Your task to perform on an android device: turn off wifi Image 0: 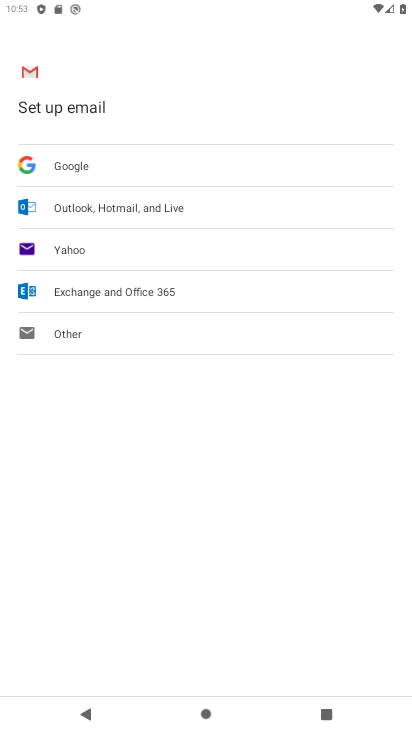
Step 0: press home button
Your task to perform on an android device: turn off wifi Image 1: 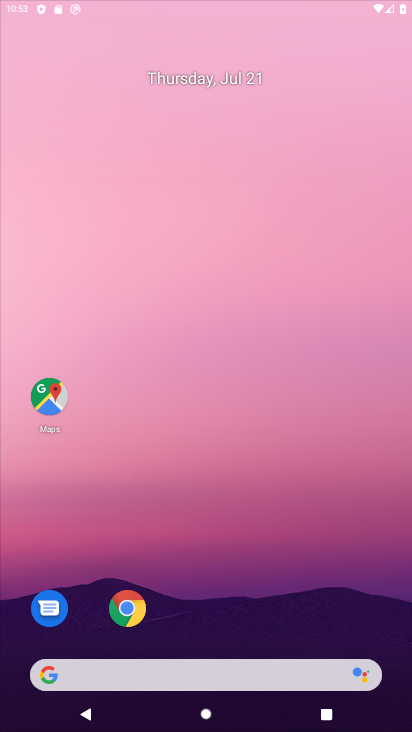
Step 1: drag from (236, 580) to (408, 55)
Your task to perform on an android device: turn off wifi Image 2: 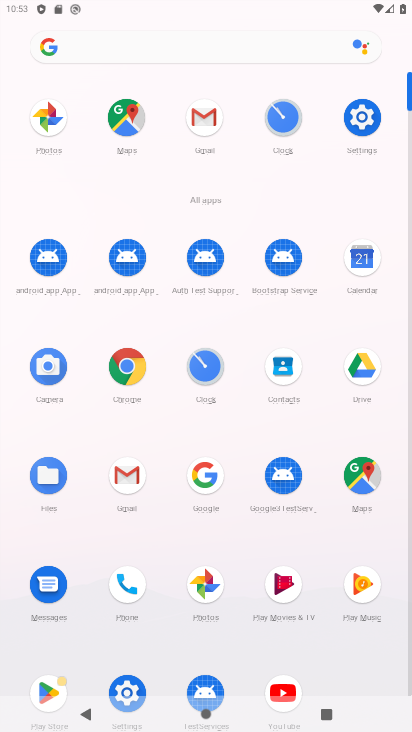
Step 2: click (360, 114)
Your task to perform on an android device: turn off wifi Image 3: 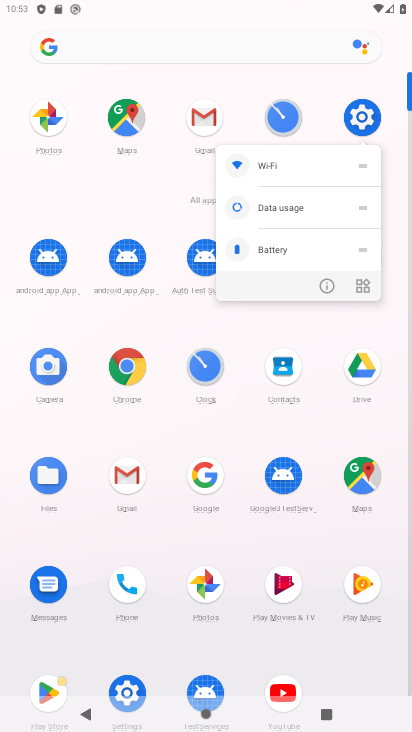
Step 3: click (325, 281)
Your task to perform on an android device: turn off wifi Image 4: 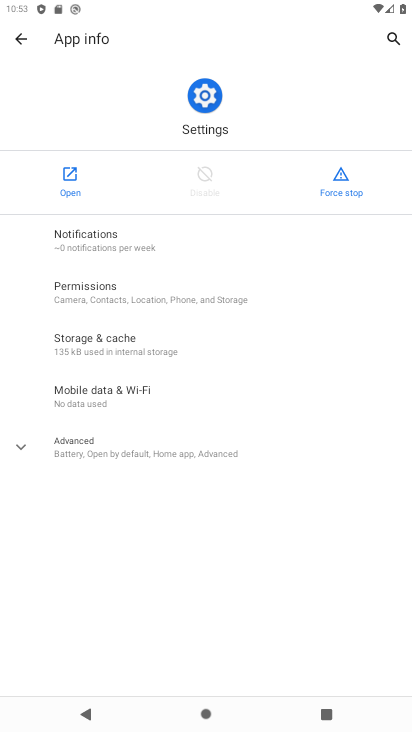
Step 4: click (70, 185)
Your task to perform on an android device: turn off wifi Image 5: 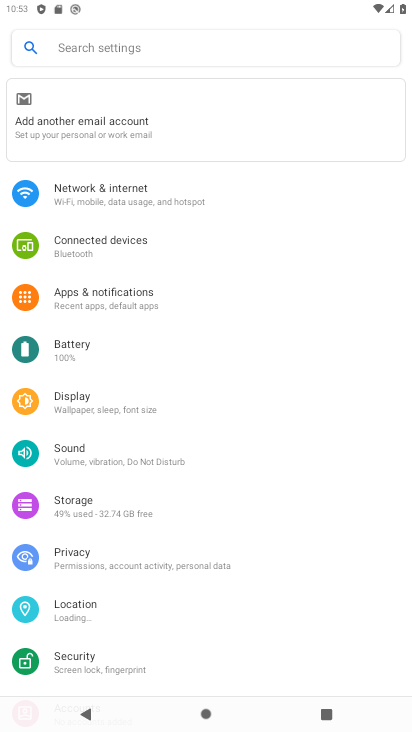
Step 5: drag from (131, 463) to (220, 153)
Your task to perform on an android device: turn off wifi Image 6: 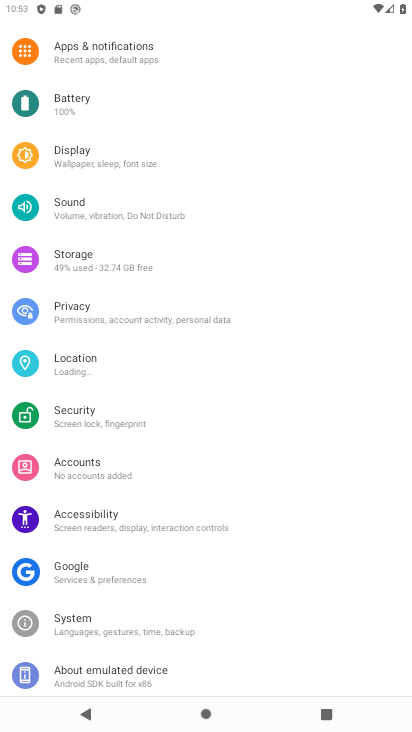
Step 6: drag from (156, 503) to (229, 180)
Your task to perform on an android device: turn off wifi Image 7: 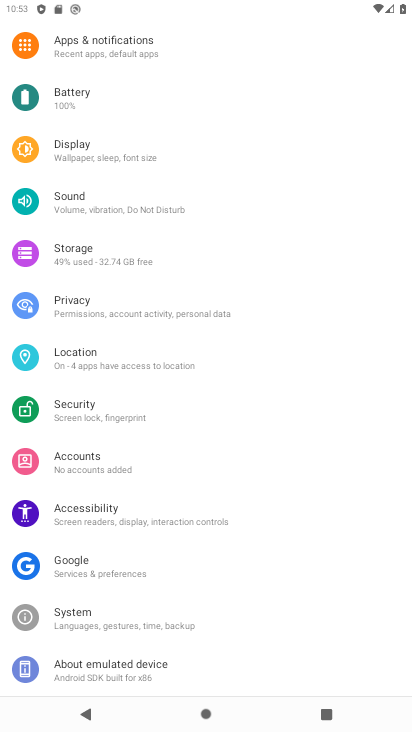
Step 7: drag from (196, 158) to (246, 437)
Your task to perform on an android device: turn off wifi Image 8: 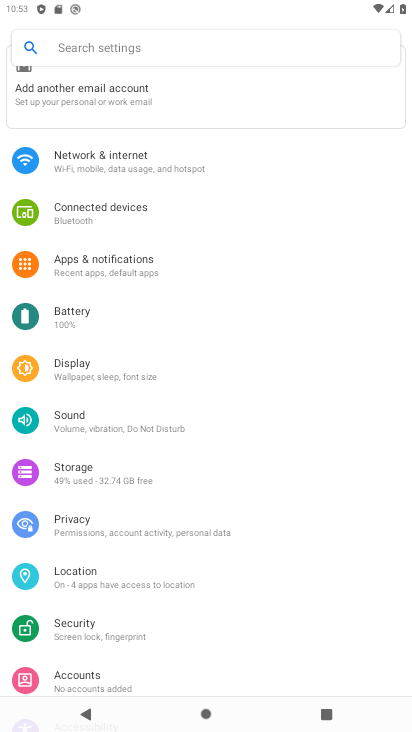
Step 8: click (87, 150)
Your task to perform on an android device: turn off wifi Image 9: 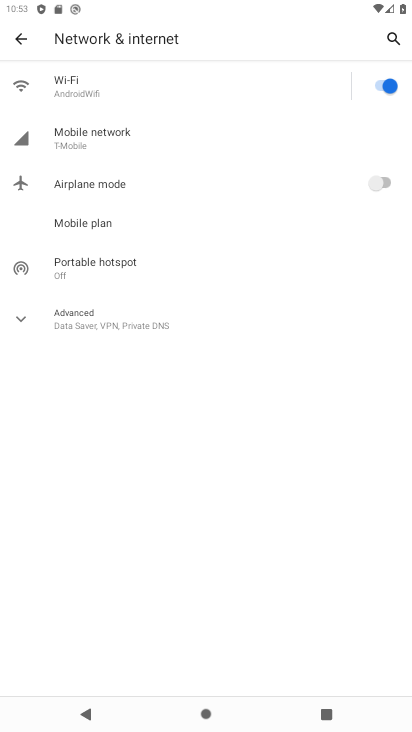
Step 9: drag from (153, 399) to (188, 238)
Your task to perform on an android device: turn off wifi Image 10: 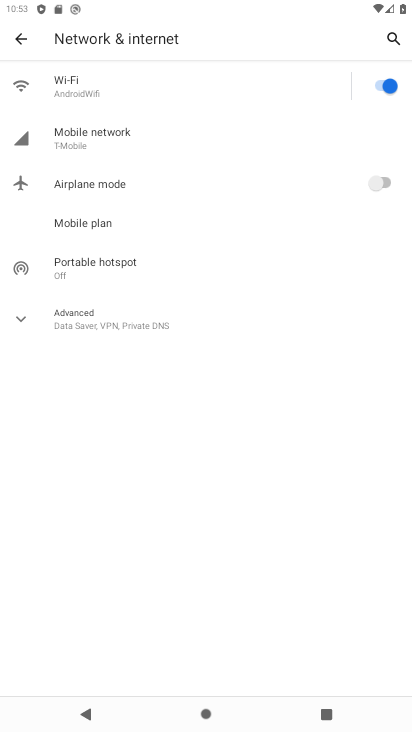
Step 10: click (103, 109)
Your task to perform on an android device: turn off wifi Image 11: 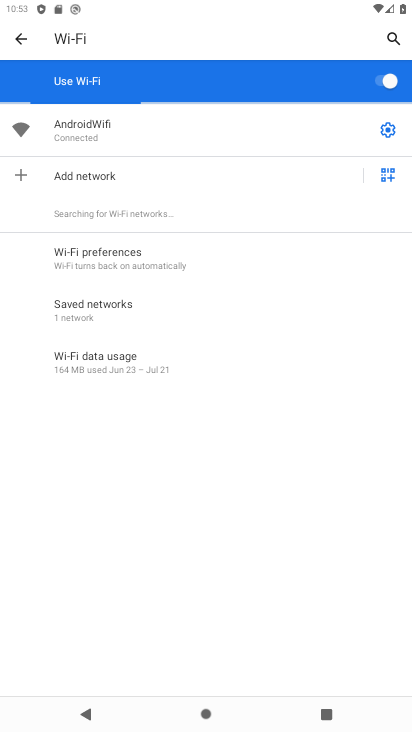
Step 11: click (372, 76)
Your task to perform on an android device: turn off wifi Image 12: 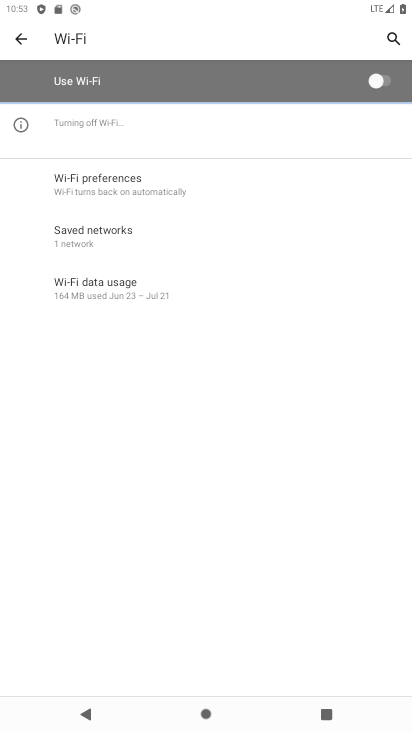
Step 12: task complete